Your task to perform on an android device: Open privacy settings Image 0: 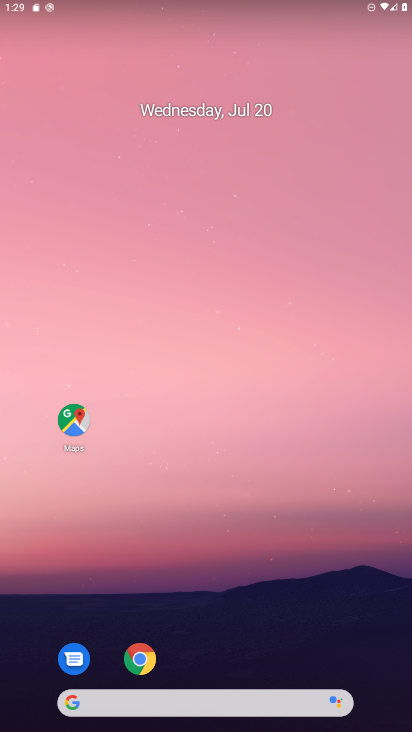
Step 0: drag from (204, 708) to (262, 178)
Your task to perform on an android device: Open privacy settings Image 1: 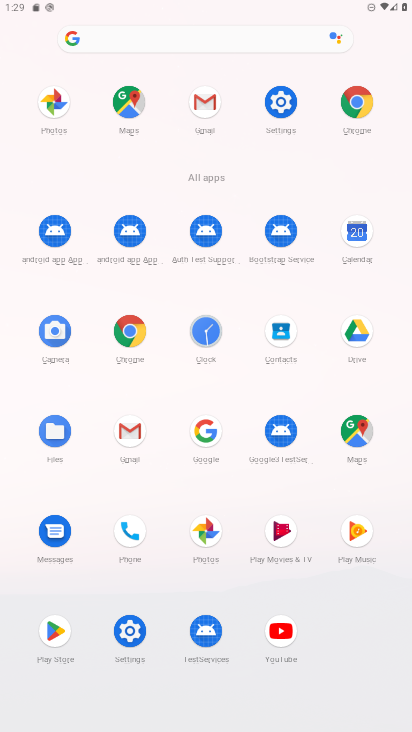
Step 1: click (281, 101)
Your task to perform on an android device: Open privacy settings Image 2: 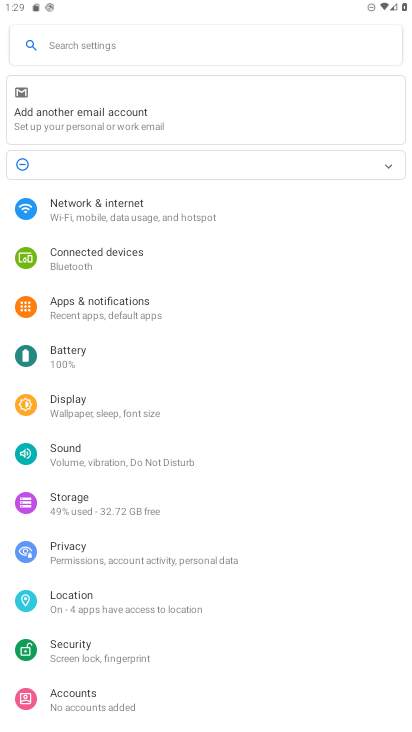
Step 2: click (88, 552)
Your task to perform on an android device: Open privacy settings Image 3: 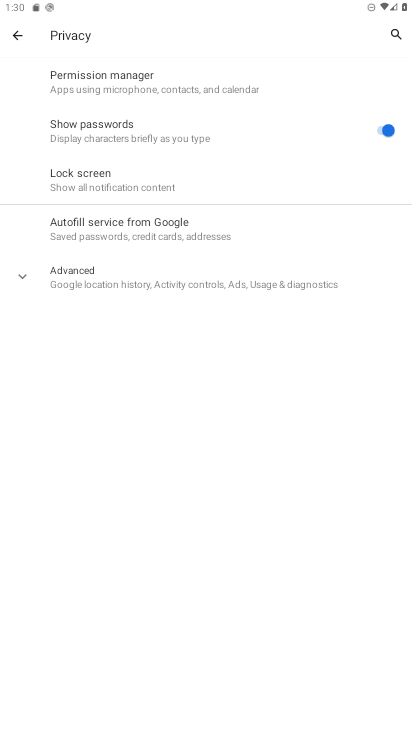
Step 3: task complete